Your task to perform on an android device: turn off airplane mode Image 0: 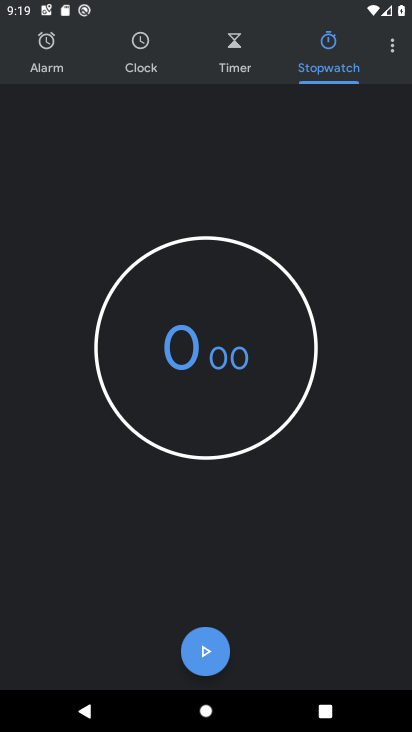
Step 0: press home button
Your task to perform on an android device: turn off airplane mode Image 1: 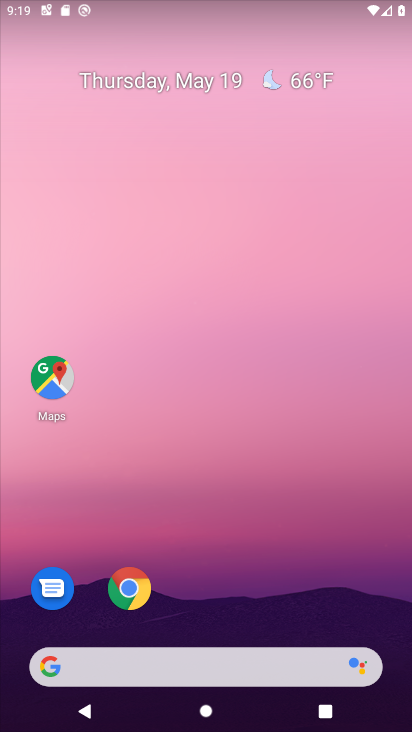
Step 1: drag from (335, 584) to (342, 223)
Your task to perform on an android device: turn off airplane mode Image 2: 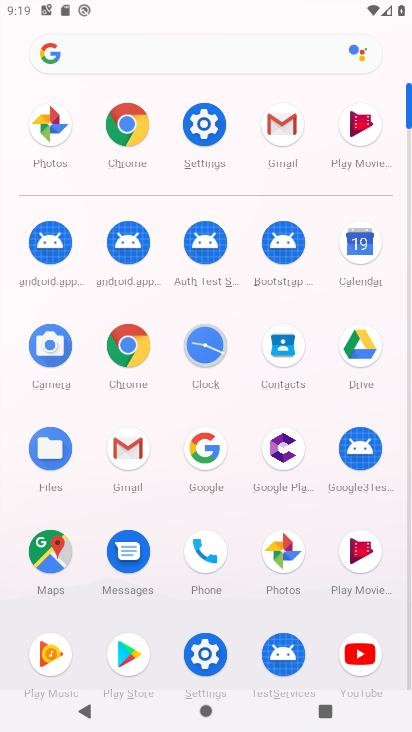
Step 2: click (208, 671)
Your task to perform on an android device: turn off airplane mode Image 3: 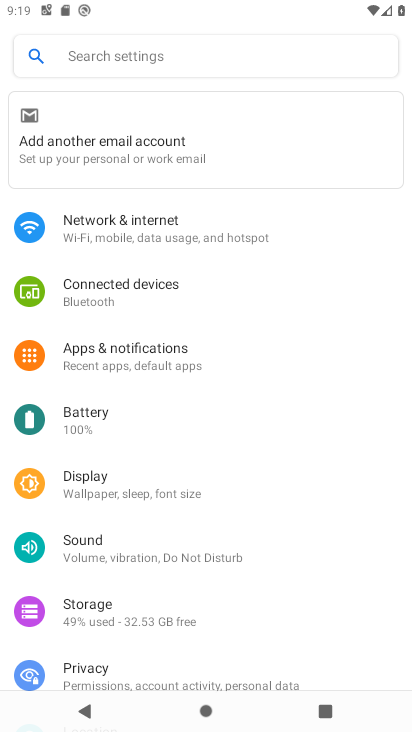
Step 3: drag from (334, 402) to (332, 544)
Your task to perform on an android device: turn off airplane mode Image 4: 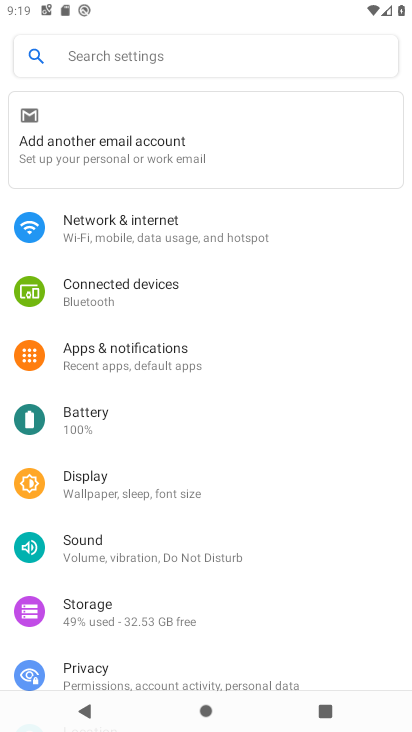
Step 4: drag from (334, 613) to (337, 454)
Your task to perform on an android device: turn off airplane mode Image 5: 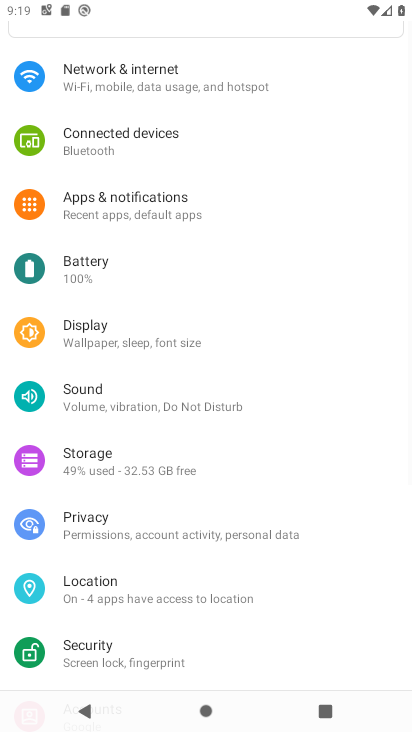
Step 5: drag from (354, 639) to (352, 520)
Your task to perform on an android device: turn off airplane mode Image 6: 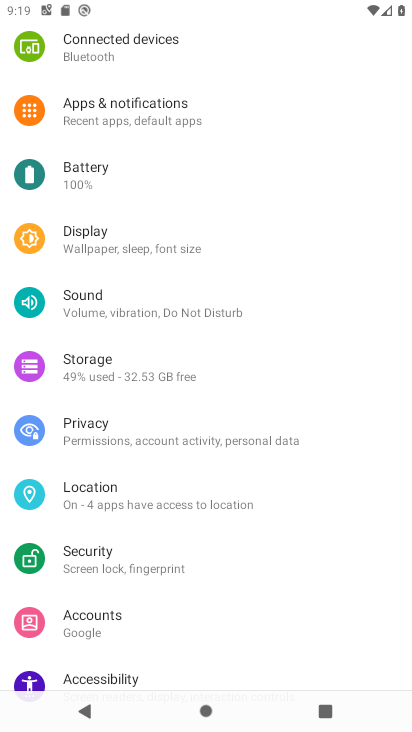
Step 6: drag from (358, 636) to (355, 524)
Your task to perform on an android device: turn off airplane mode Image 7: 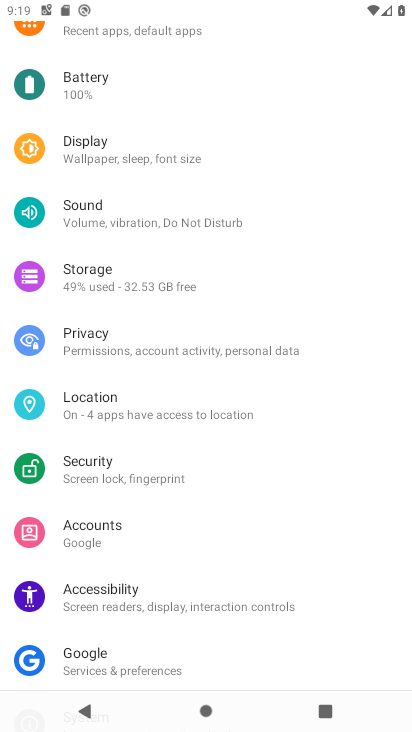
Step 7: drag from (384, 604) to (355, 474)
Your task to perform on an android device: turn off airplane mode Image 8: 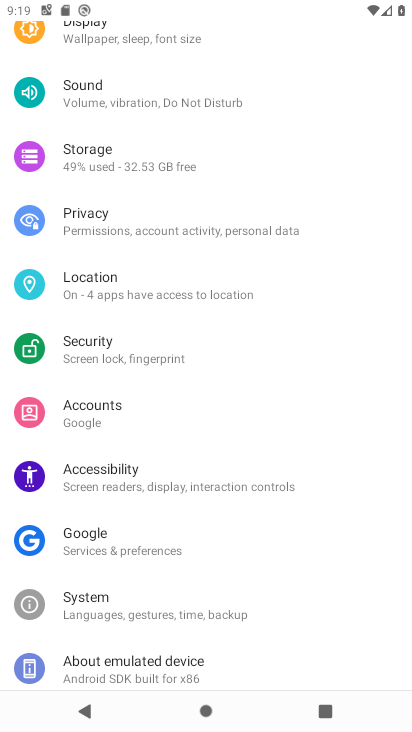
Step 8: drag from (354, 413) to (348, 541)
Your task to perform on an android device: turn off airplane mode Image 9: 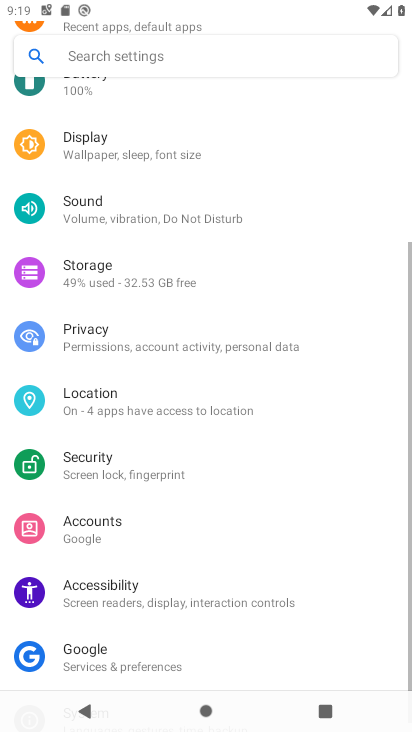
Step 9: drag from (369, 420) to (355, 545)
Your task to perform on an android device: turn off airplane mode Image 10: 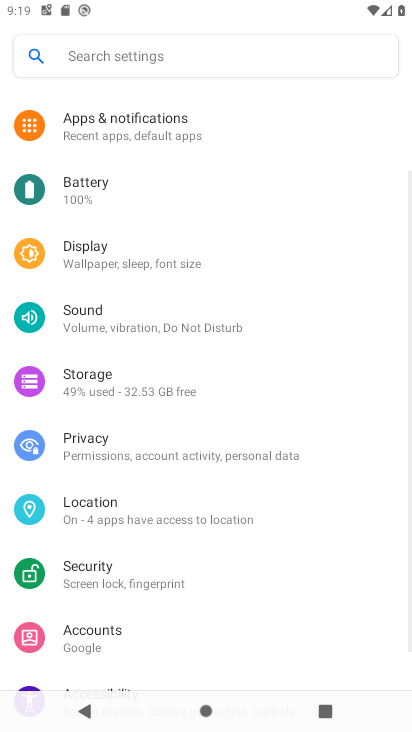
Step 10: drag from (357, 420) to (343, 534)
Your task to perform on an android device: turn off airplane mode Image 11: 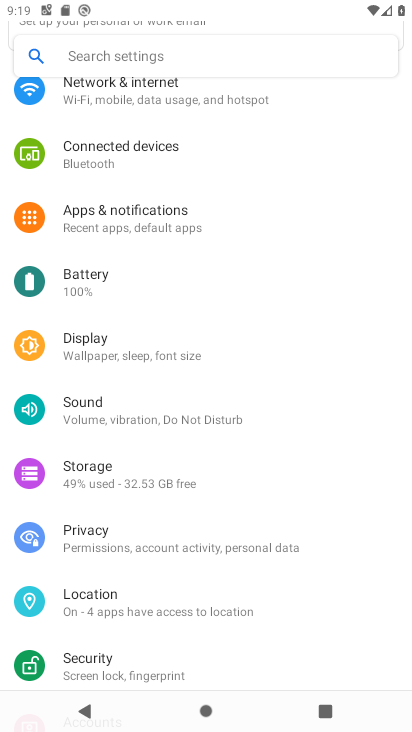
Step 11: drag from (347, 346) to (355, 477)
Your task to perform on an android device: turn off airplane mode Image 12: 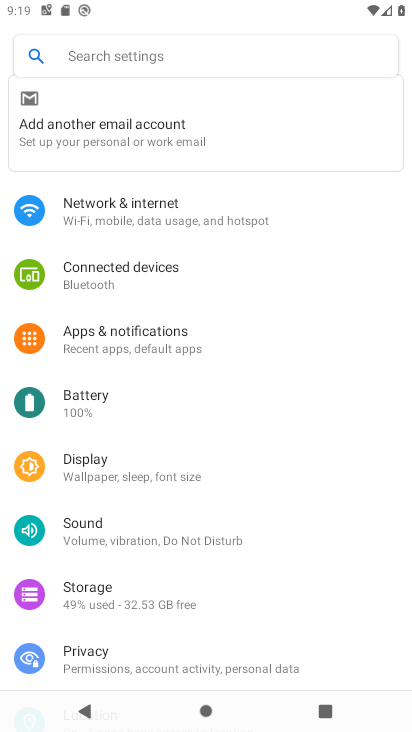
Step 12: drag from (360, 343) to (364, 412)
Your task to perform on an android device: turn off airplane mode Image 13: 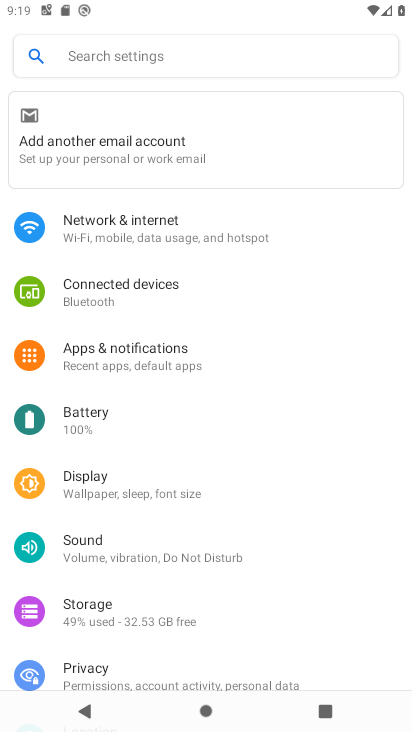
Step 13: drag from (351, 312) to (342, 404)
Your task to perform on an android device: turn off airplane mode Image 14: 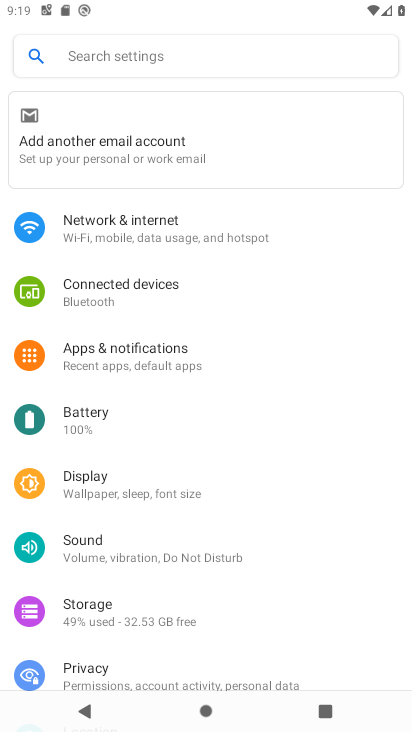
Step 14: click (294, 244)
Your task to perform on an android device: turn off airplane mode Image 15: 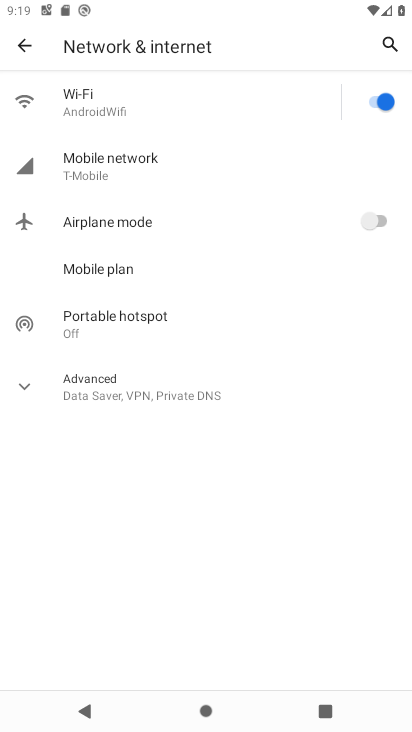
Step 15: task complete